Your task to perform on an android device: Turn on the flashlight Image 0: 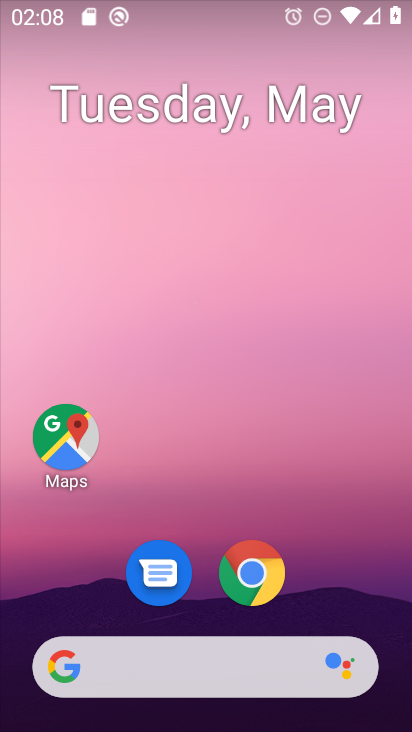
Step 0: drag from (246, 6) to (246, 712)
Your task to perform on an android device: Turn on the flashlight Image 1: 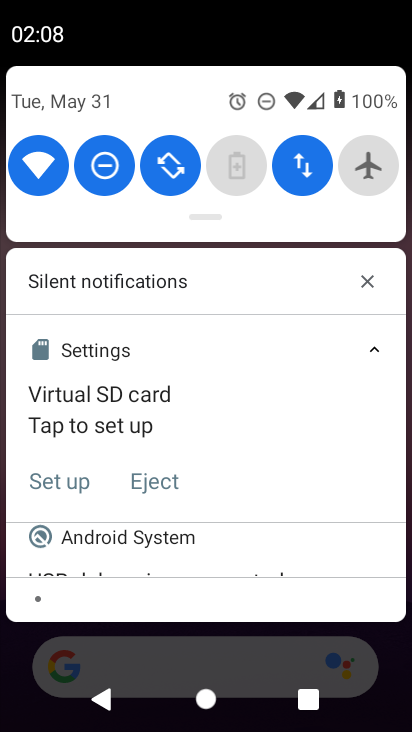
Step 1: task complete